Your task to perform on an android device: turn on javascript in the chrome app Image 0: 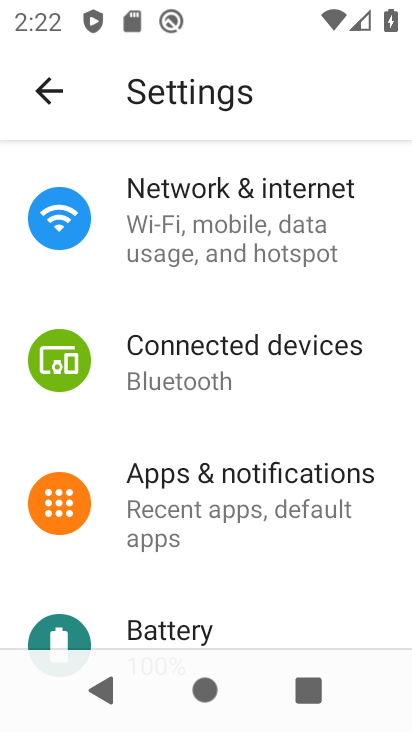
Step 0: press back button
Your task to perform on an android device: turn on javascript in the chrome app Image 1: 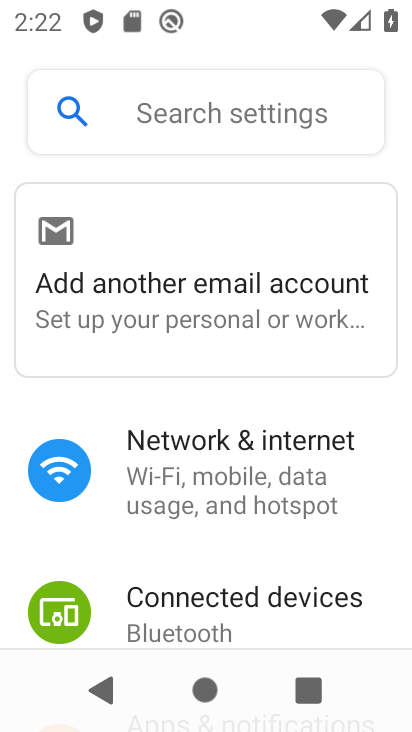
Step 1: press home button
Your task to perform on an android device: turn on javascript in the chrome app Image 2: 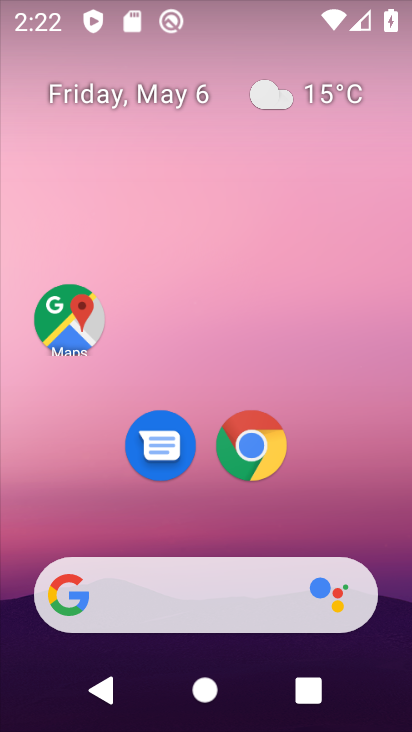
Step 2: click (270, 463)
Your task to perform on an android device: turn on javascript in the chrome app Image 3: 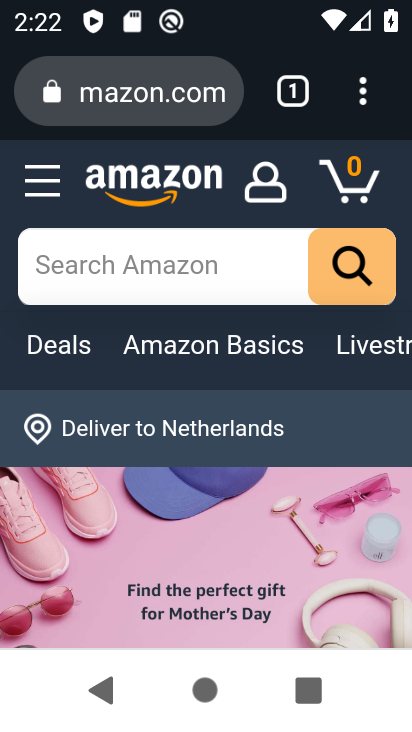
Step 3: drag from (366, 90) to (308, 484)
Your task to perform on an android device: turn on javascript in the chrome app Image 4: 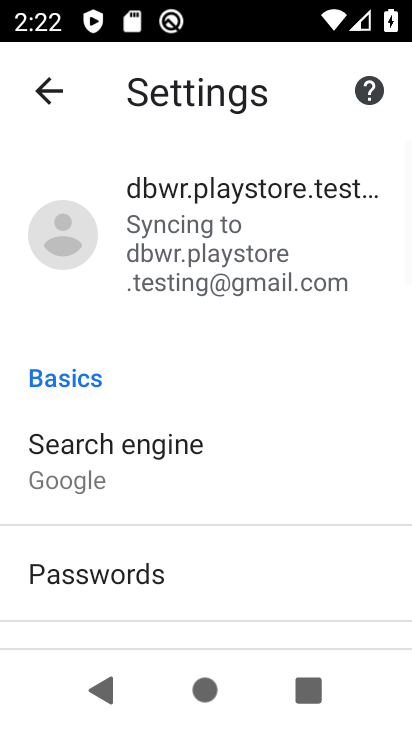
Step 4: drag from (216, 603) to (320, 196)
Your task to perform on an android device: turn on javascript in the chrome app Image 5: 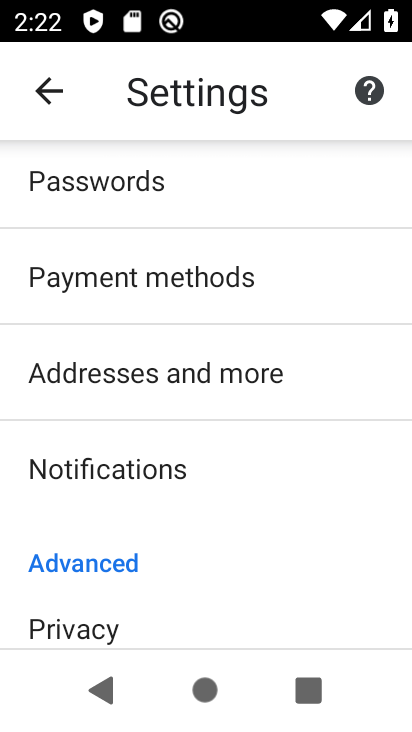
Step 5: drag from (225, 599) to (289, 276)
Your task to perform on an android device: turn on javascript in the chrome app Image 6: 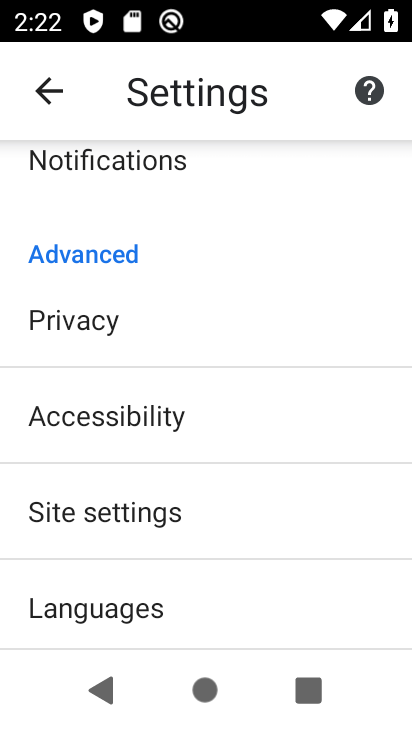
Step 6: click (188, 512)
Your task to perform on an android device: turn on javascript in the chrome app Image 7: 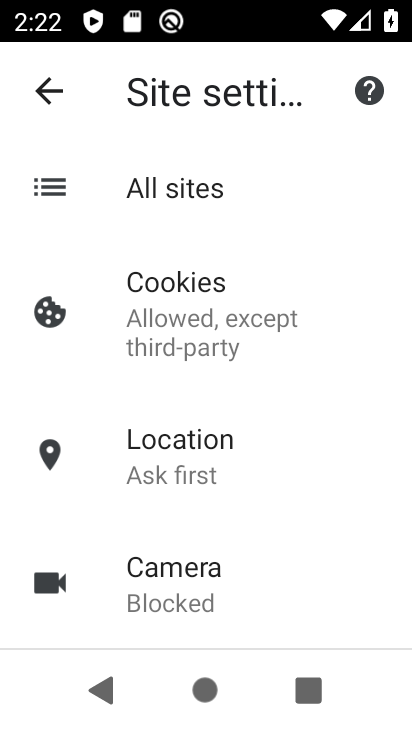
Step 7: drag from (163, 547) to (235, 139)
Your task to perform on an android device: turn on javascript in the chrome app Image 8: 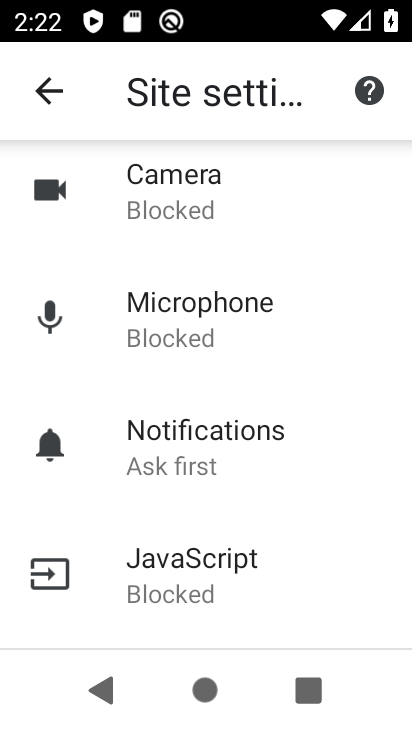
Step 8: click (215, 576)
Your task to perform on an android device: turn on javascript in the chrome app Image 9: 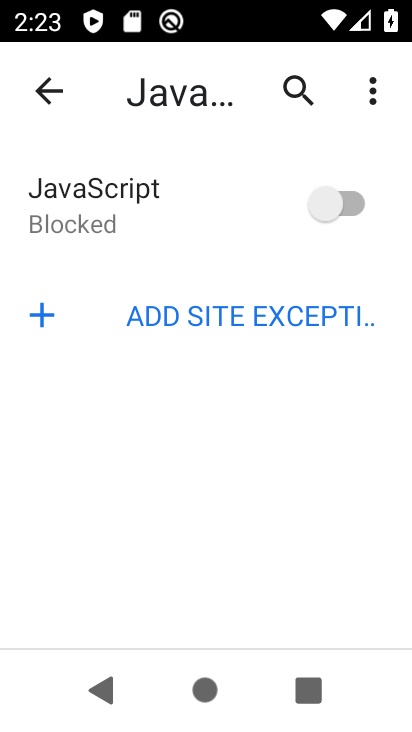
Step 9: click (370, 198)
Your task to perform on an android device: turn on javascript in the chrome app Image 10: 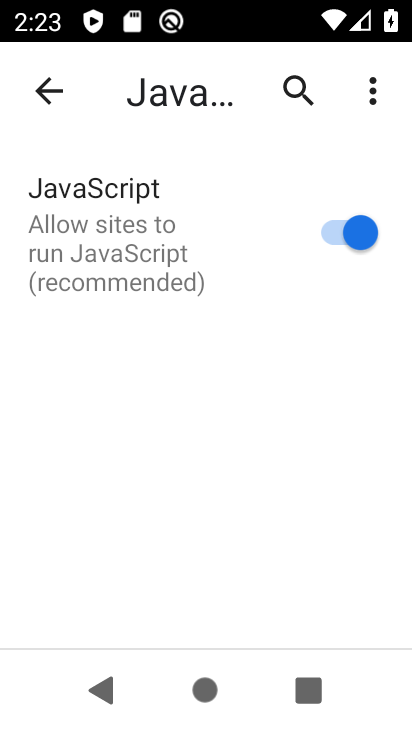
Step 10: task complete